Your task to perform on an android device: turn on notifications settings in the gmail app Image 0: 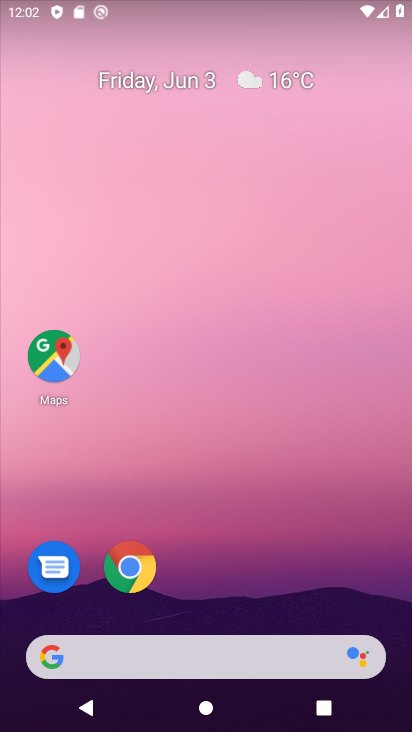
Step 0: drag from (231, 624) to (208, 304)
Your task to perform on an android device: turn on notifications settings in the gmail app Image 1: 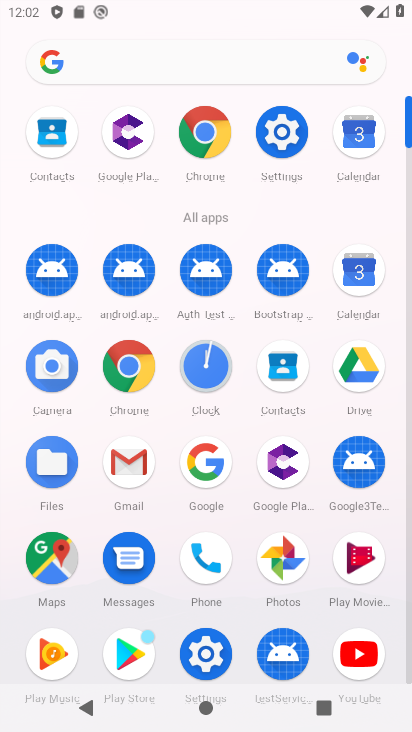
Step 1: click (133, 470)
Your task to perform on an android device: turn on notifications settings in the gmail app Image 2: 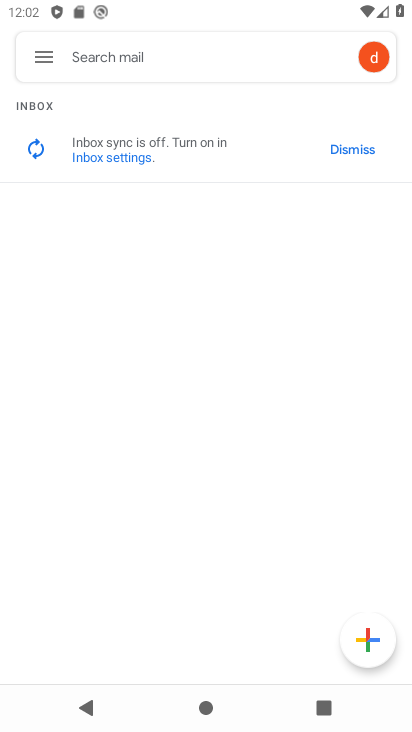
Step 2: click (45, 67)
Your task to perform on an android device: turn on notifications settings in the gmail app Image 3: 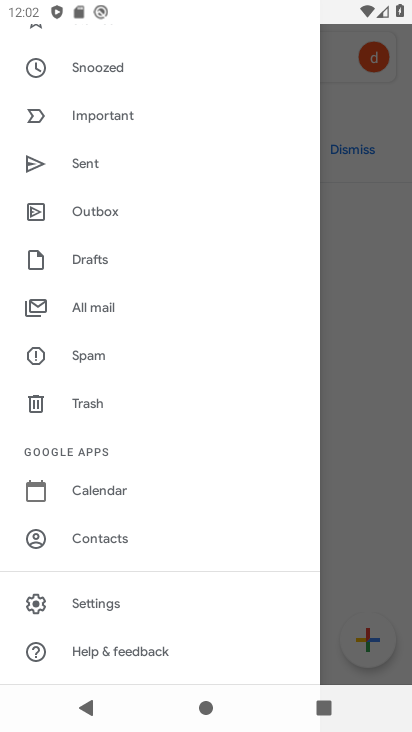
Step 3: click (128, 606)
Your task to perform on an android device: turn on notifications settings in the gmail app Image 4: 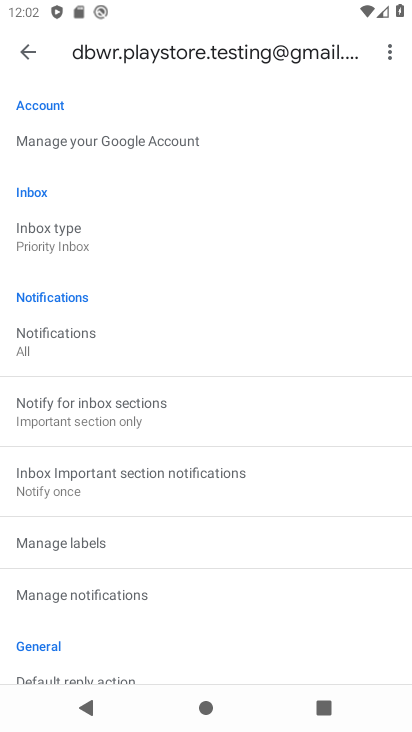
Step 4: click (152, 595)
Your task to perform on an android device: turn on notifications settings in the gmail app Image 5: 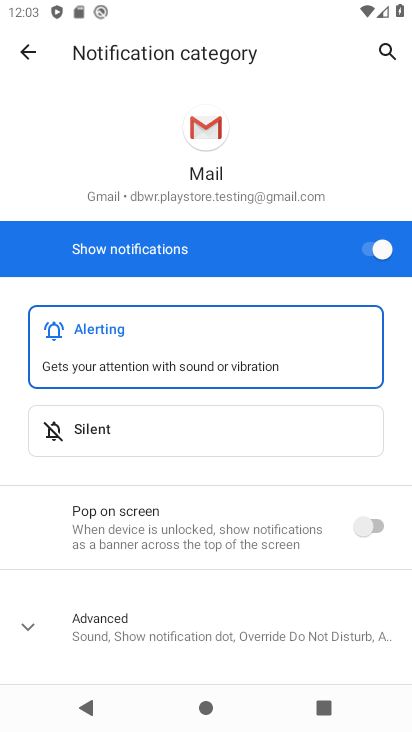
Step 5: task complete